Your task to perform on an android device: check battery use Image 0: 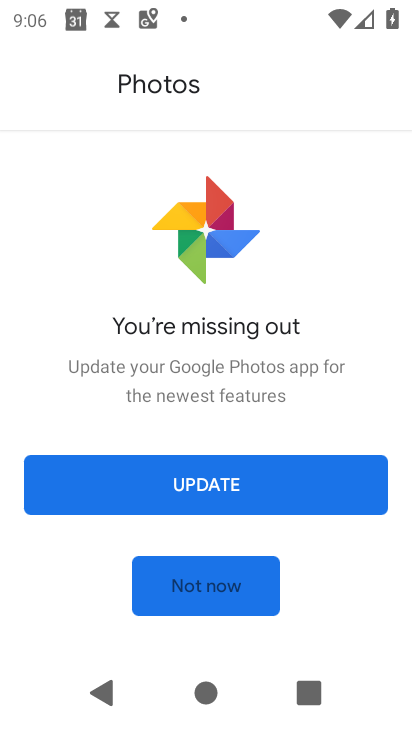
Step 0: press home button
Your task to perform on an android device: check battery use Image 1: 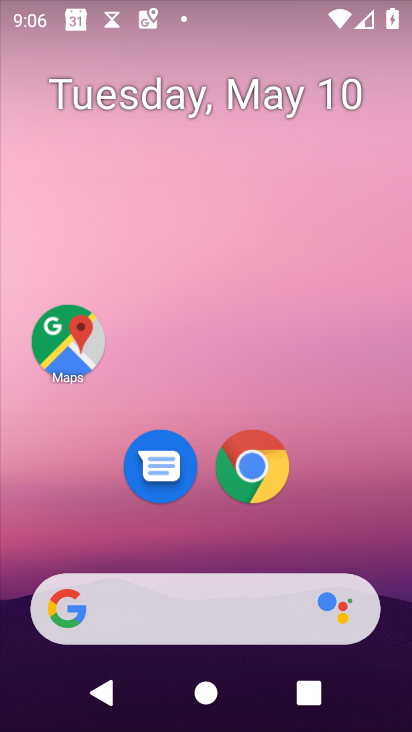
Step 1: drag from (341, 536) to (308, 44)
Your task to perform on an android device: check battery use Image 2: 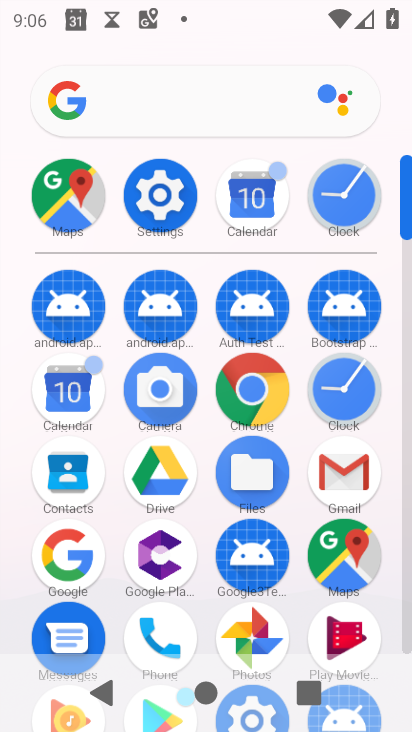
Step 2: click (147, 202)
Your task to perform on an android device: check battery use Image 3: 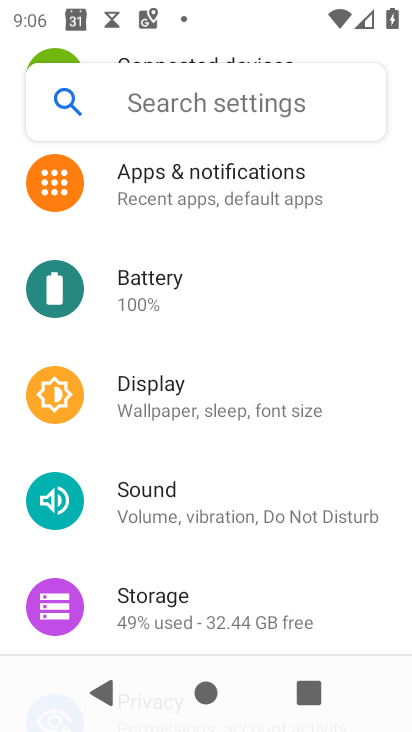
Step 3: click (162, 289)
Your task to perform on an android device: check battery use Image 4: 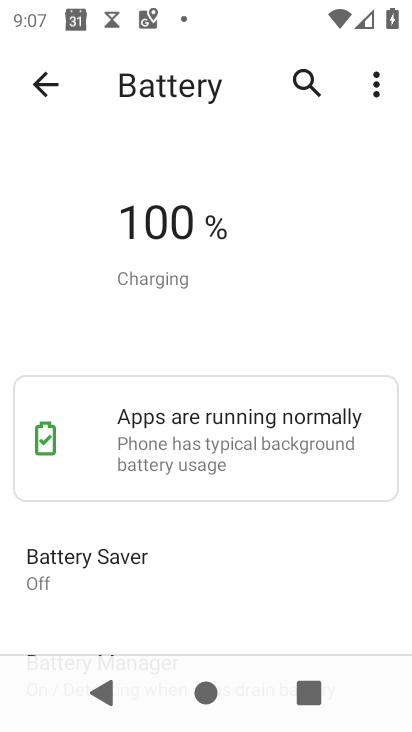
Step 4: click (377, 79)
Your task to perform on an android device: check battery use Image 5: 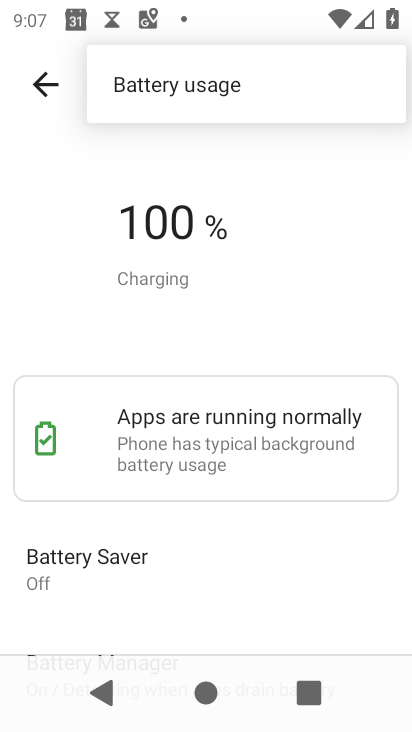
Step 5: click (331, 94)
Your task to perform on an android device: check battery use Image 6: 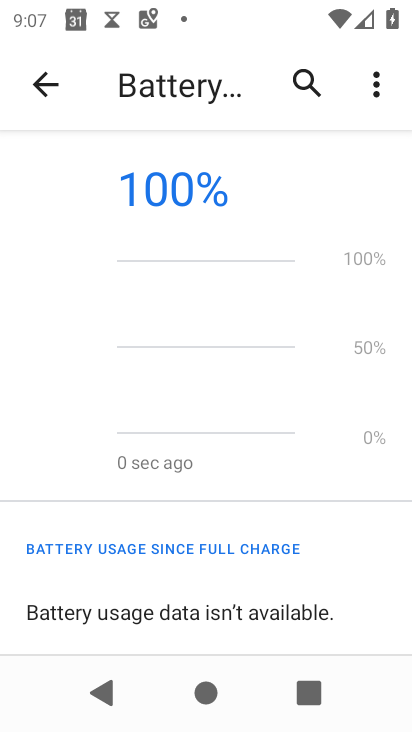
Step 6: task complete